Your task to perform on an android device: make emails show in primary in the gmail app Image 0: 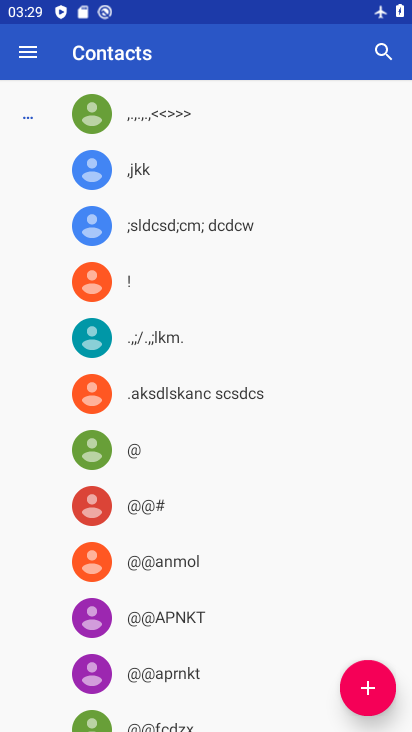
Step 0: press home button
Your task to perform on an android device: make emails show in primary in the gmail app Image 1: 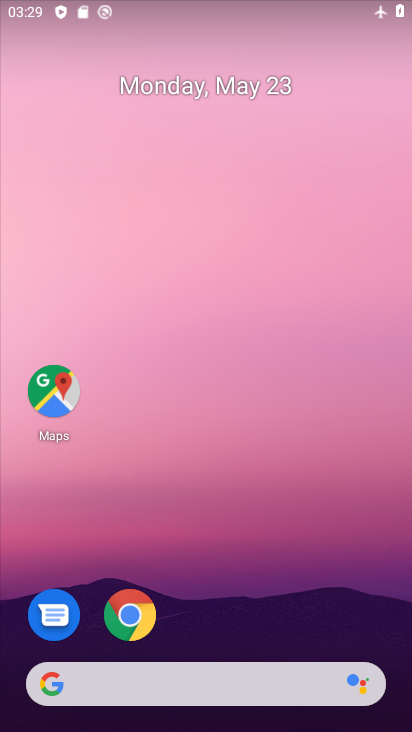
Step 1: drag from (281, 576) to (302, 305)
Your task to perform on an android device: make emails show in primary in the gmail app Image 2: 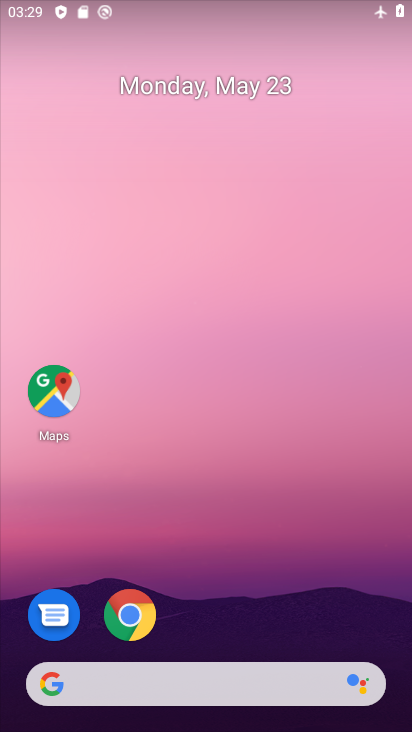
Step 2: drag from (274, 446) to (288, 191)
Your task to perform on an android device: make emails show in primary in the gmail app Image 3: 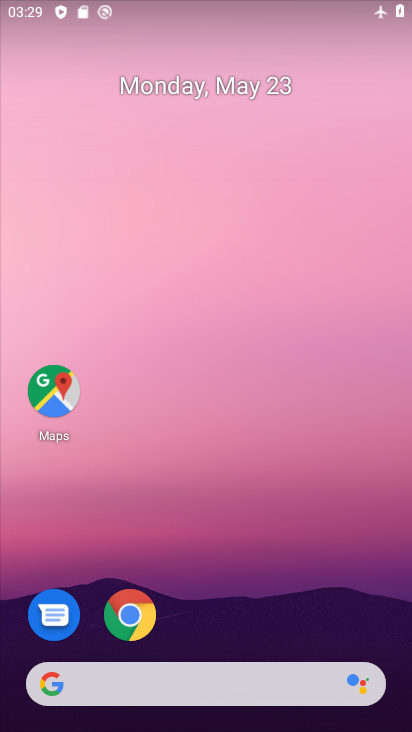
Step 3: drag from (235, 630) to (264, 282)
Your task to perform on an android device: make emails show in primary in the gmail app Image 4: 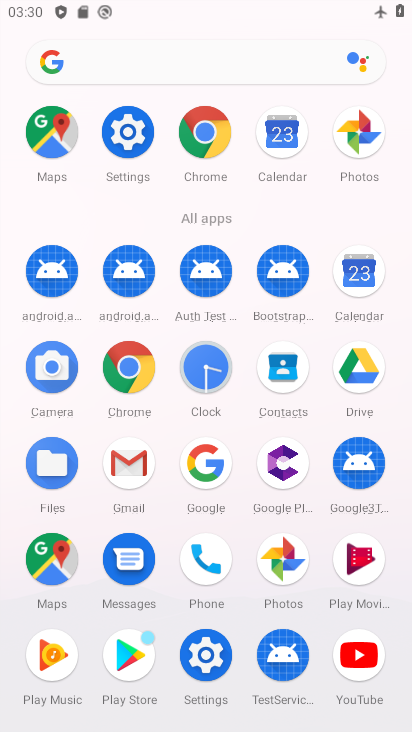
Step 4: click (124, 459)
Your task to perform on an android device: make emails show in primary in the gmail app Image 5: 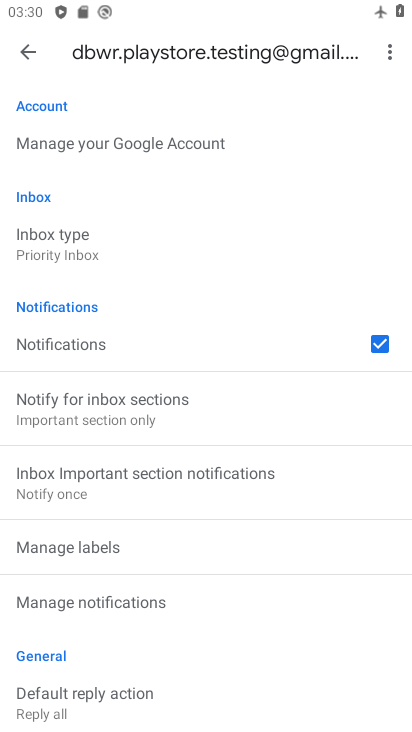
Step 5: click (28, 41)
Your task to perform on an android device: make emails show in primary in the gmail app Image 6: 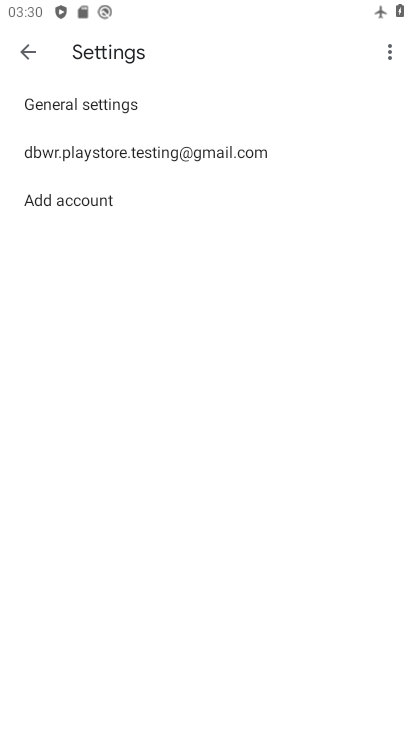
Step 6: click (26, 43)
Your task to perform on an android device: make emails show in primary in the gmail app Image 7: 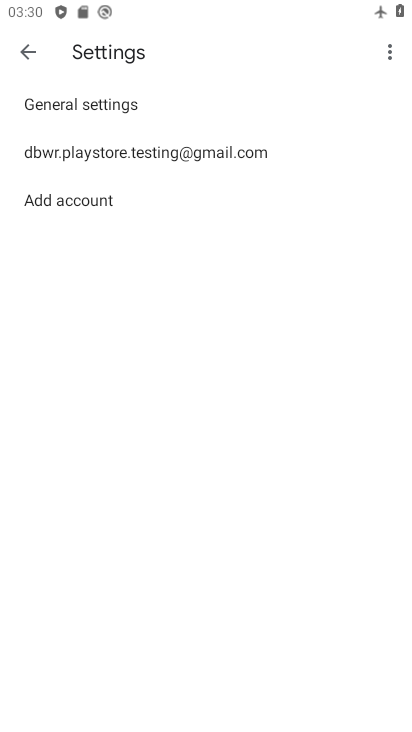
Step 7: click (102, 150)
Your task to perform on an android device: make emails show in primary in the gmail app Image 8: 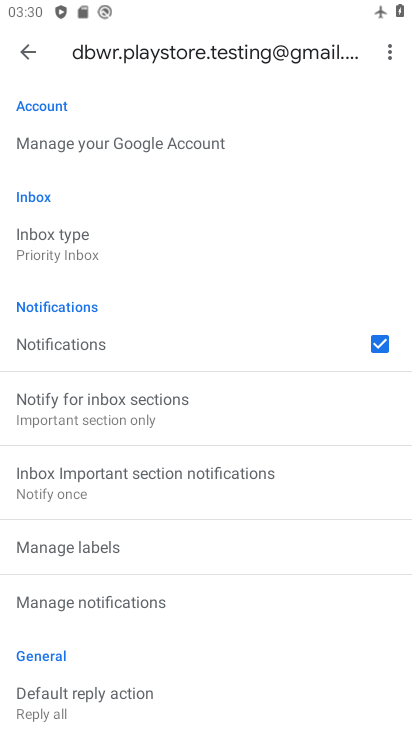
Step 8: task complete